Your task to perform on an android device: Open calendar and show me the second week of next month Image 0: 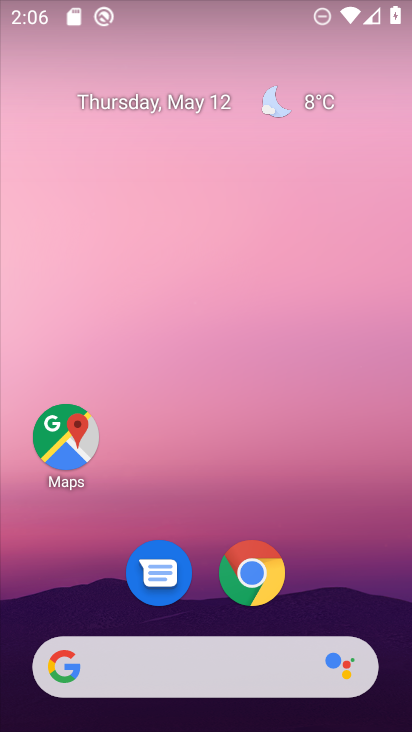
Step 0: drag from (340, 601) to (151, 67)
Your task to perform on an android device: Open calendar and show me the second week of next month Image 1: 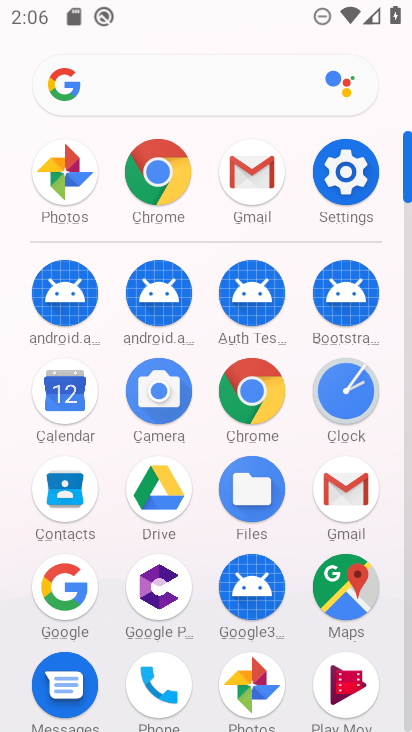
Step 1: click (62, 379)
Your task to perform on an android device: Open calendar and show me the second week of next month Image 2: 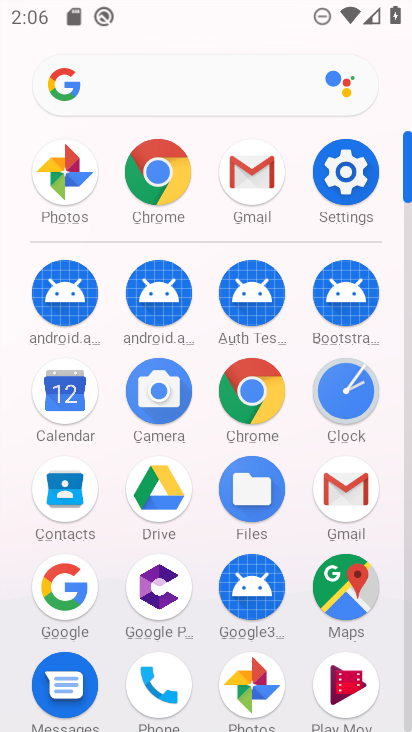
Step 2: click (65, 391)
Your task to perform on an android device: Open calendar and show me the second week of next month Image 3: 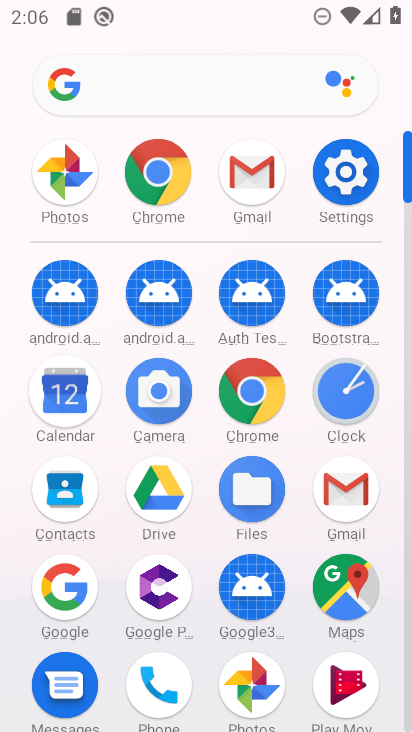
Step 3: click (67, 393)
Your task to perform on an android device: Open calendar and show me the second week of next month Image 4: 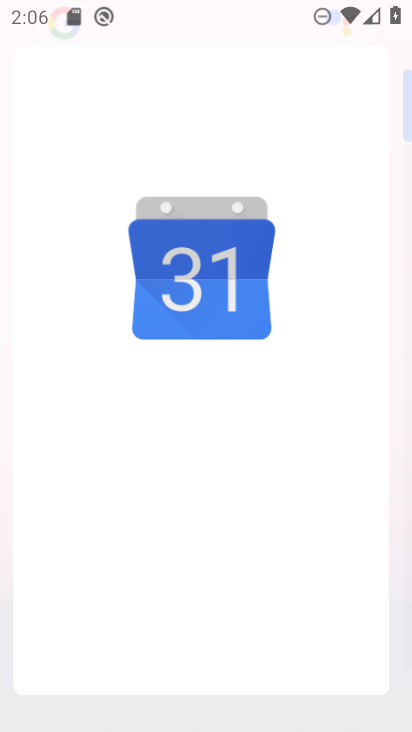
Step 4: click (67, 393)
Your task to perform on an android device: Open calendar and show me the second week of next month Image 5: 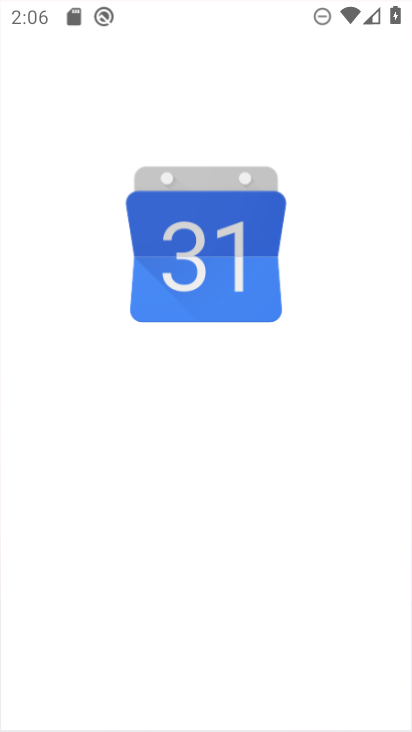
Step 5: click (68, 394)
Your task to perform on an android device: Open calendar and show me the second week of next month Image 6: 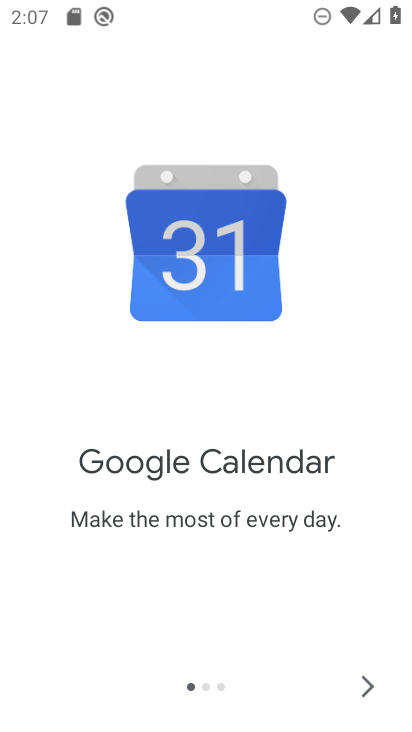
Step 6: click (372, 696)
Your task to perform on an android device: Open calendar and show me the second week of next month Image 7: 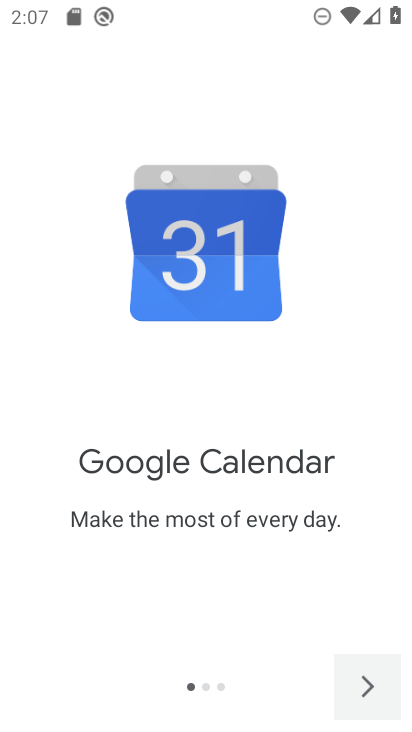
Step 7: click (374, 678)
Your task to perform on an android device: Open calendar and show me the second week of next month Image 8: 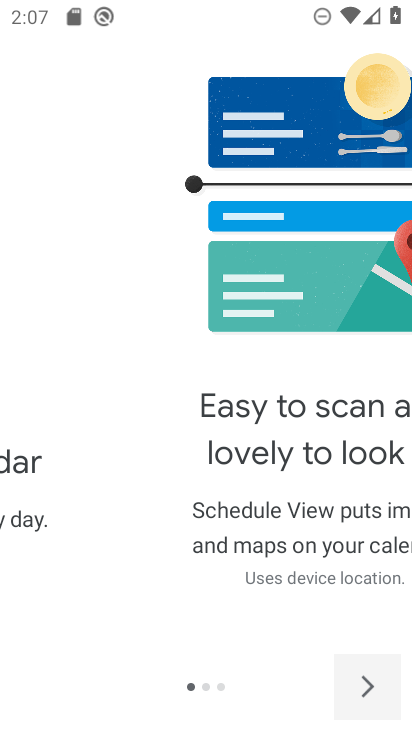
Step 8: click (374, 676)
Your task to perform on an android device: Open calendar and show me the second week of next month Image 9: 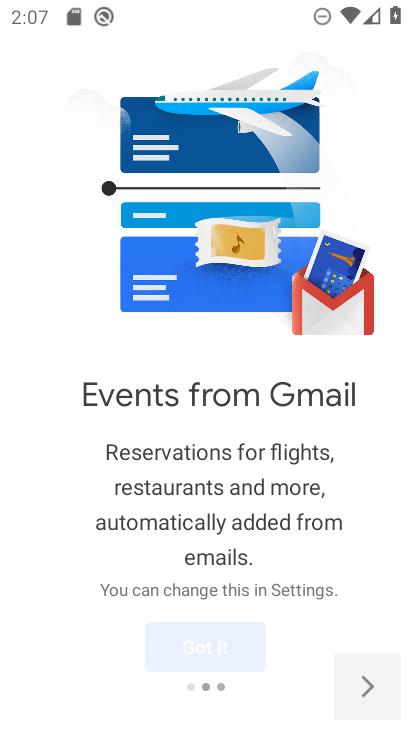
Step 9: click (376, 676)
Your task to perform on an android device: Open calendar and show me the second week of next month Image 10: 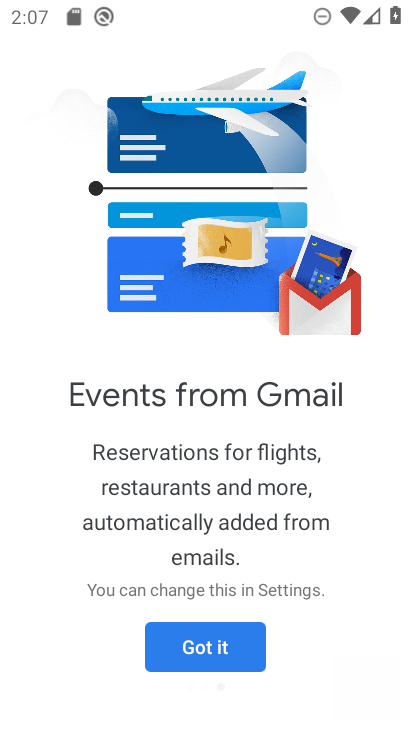
Step 10: click (376, 681)
Your task to perform on an android device: Open calendar and show me the second week of next month Image 11: 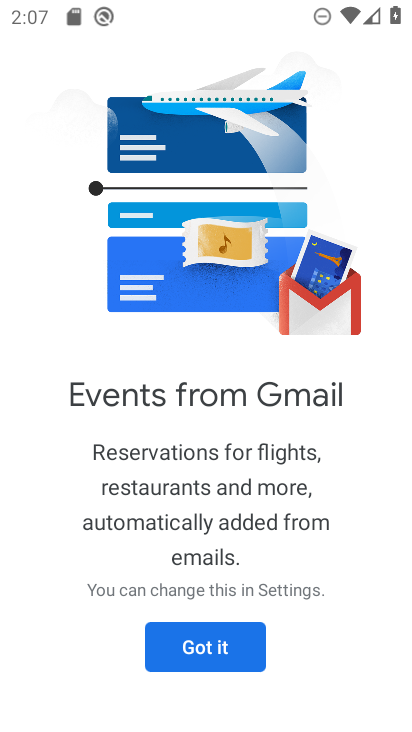
Step 11: click (372, 685)
Your task to perform on an android device: Open calendar and show me the second week of next month Image 12: 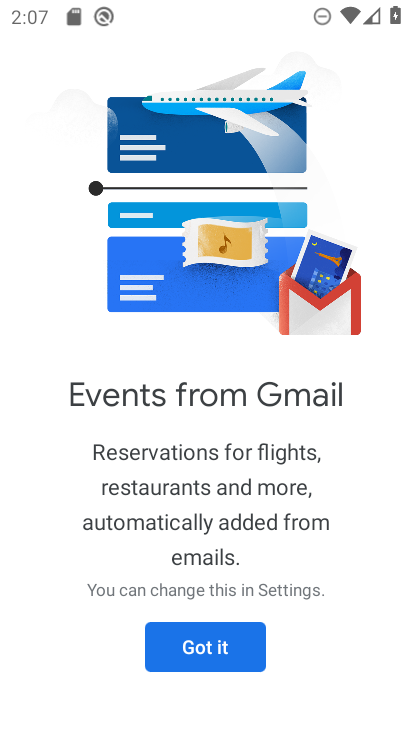
Step 12: click (212, 636)
Your task to perform on an android device: Open calendar and show me the second week of next month Image 13: 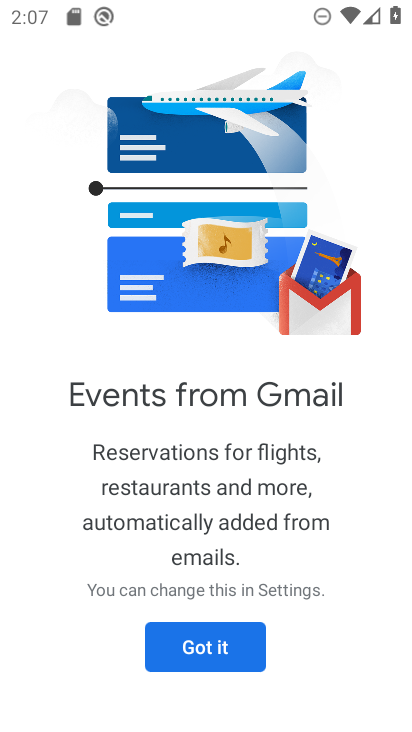
Step 13: click (212, 634)
Your task to perform on an android device: Open calendar and show me the second week of next month Image 14: 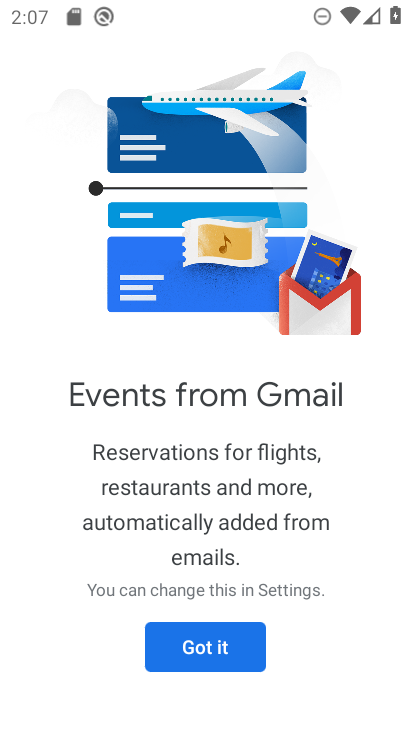
Step 14: click (211, 630)
Your task to perform on an android device: Open calendar and show me the second week of next month Image 15: 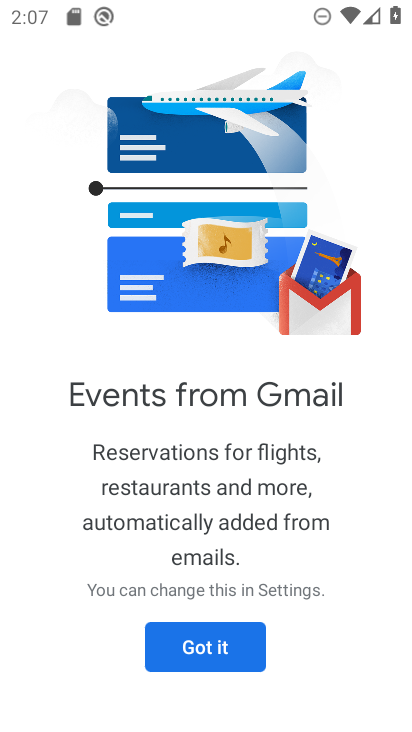
Step 15: click (212, 627)
Your task to perform on an android device: Open calendar and show me the second week of next month Image 16: 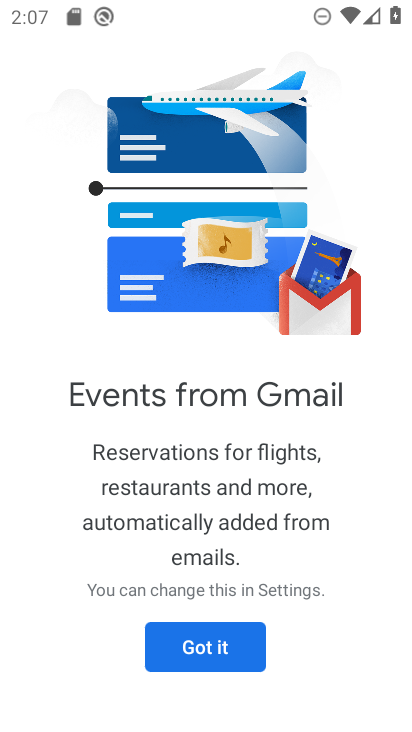
Step 16: click (212, 623)
Your task to perform on an android device: Open calendar and show me the second week of next month Image 17: 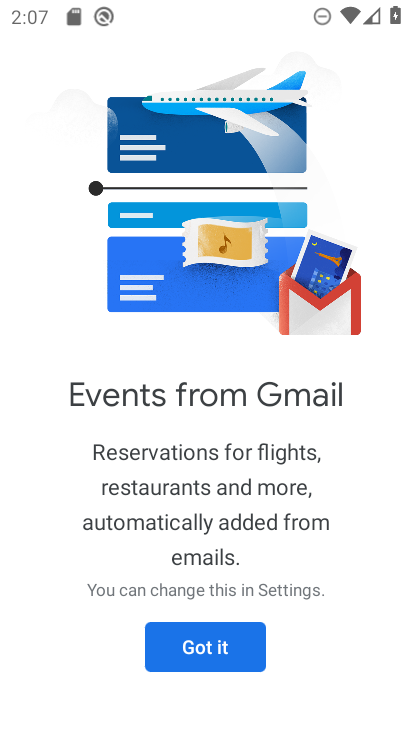
Step 17: click (205, 605)
Your task to perform on an android device: Open calendar and show me the second week of next month Image 18: 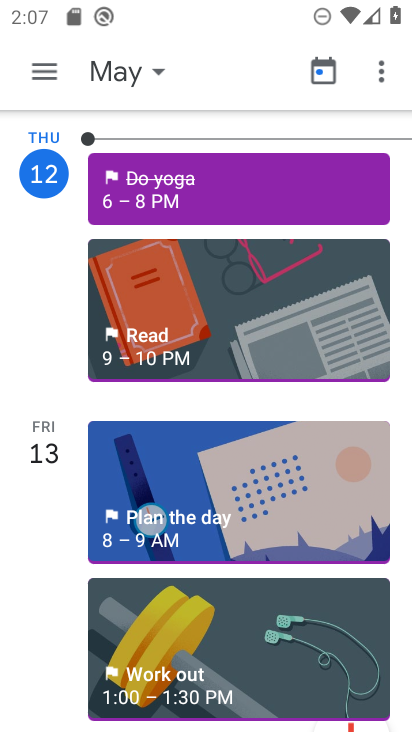
Step 18: click (235, 664)
Your task to perform on an android device: Open calendar and show me the second week of next month Image 19: 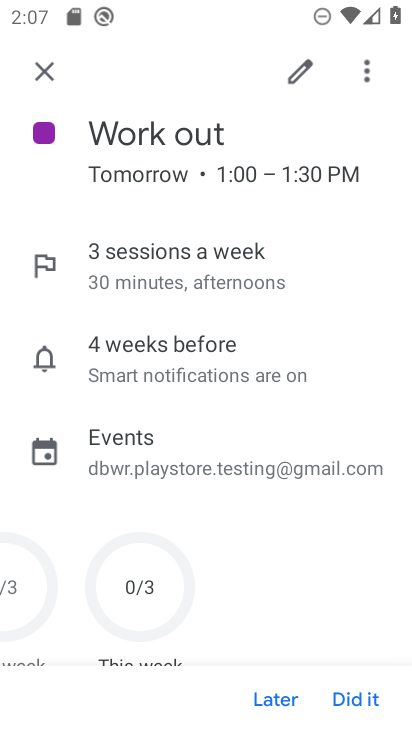
Step 19: drag from (221, 584) to (99, 155)
Your task to perform on an android device: Open calendar and show me the second week of next month Image 20: 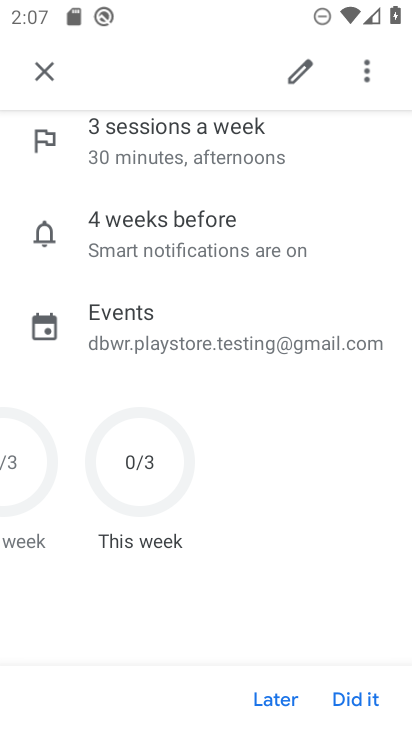
Step 20: click (47, 74)
Your task to perform on an android device: Open calendar and show me the second week of next month Image 21: 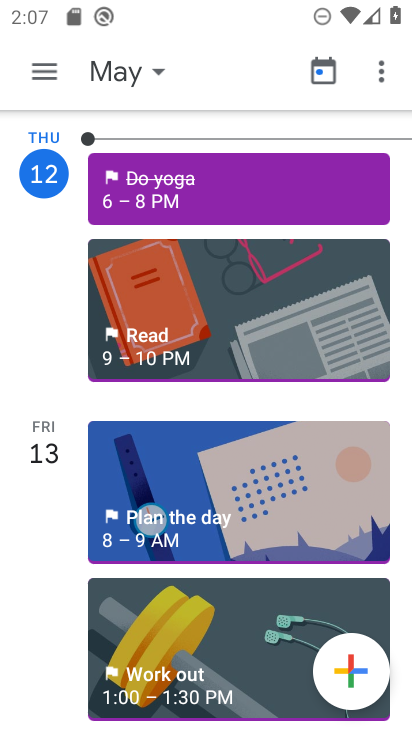
Step 21: drag from (168, 454) to (74, 202)
Your task to perform on an android device: Open calendar and show me the second week of next month Image 22: 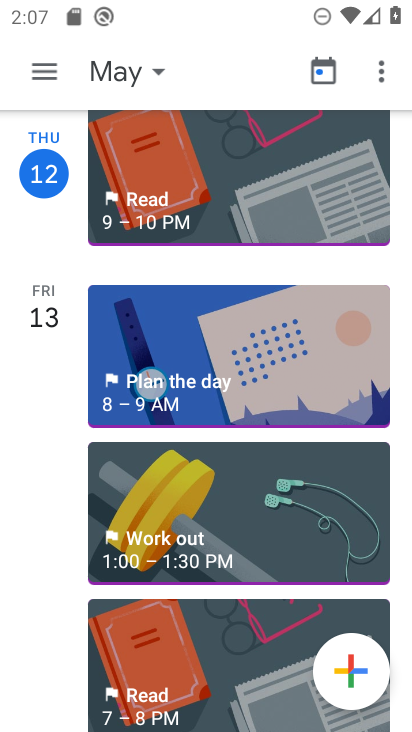
Step 22: drag from (124, 403) to (74, 214)
Your task to perform on an android device: Open calendar and show me the second week of next month Image 23: 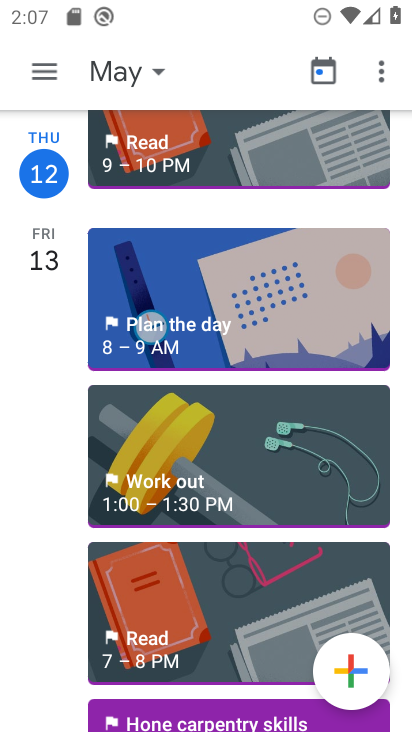
Step 23: drag from (178, 512) to (155, 210)
Your task to perform on an android device: Open calendar and show me the second week of next month Image 24: 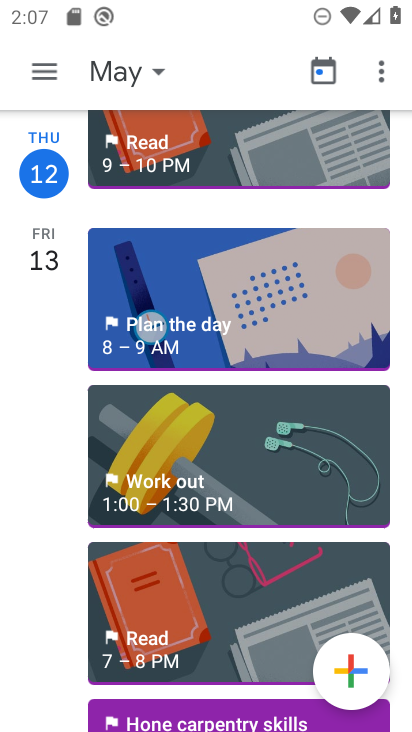
Step 24: drag from (158, 466) to (174, 199)
Your task to perform on an android device: Open calendar and show me the second week of next month Image 25: 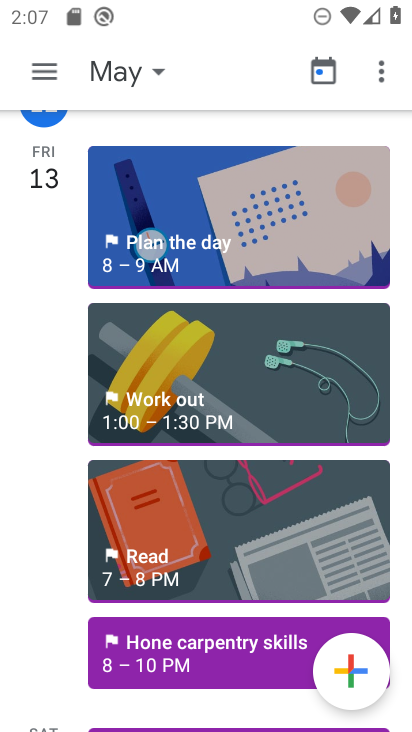
Step 25: drag from (167, 344) to (232, 676)
Your task to perform on an android device: Open calendar and show me the second week of next month Image 26: 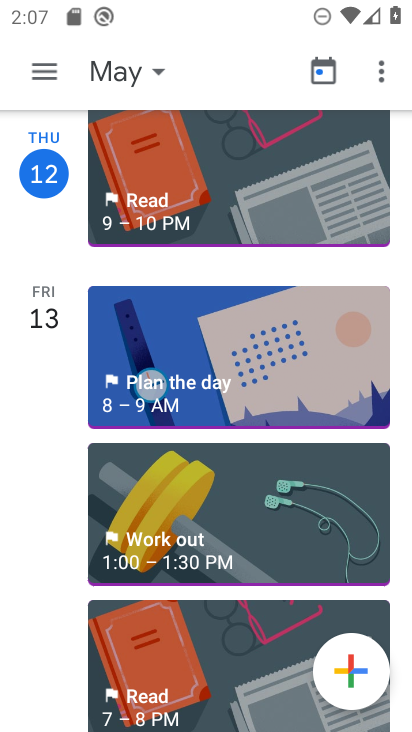
Step 26: drag from (207, 337) to (249, 610)
Your task to perform on an android device: Open calendar and show me the second week of next month Image 27: 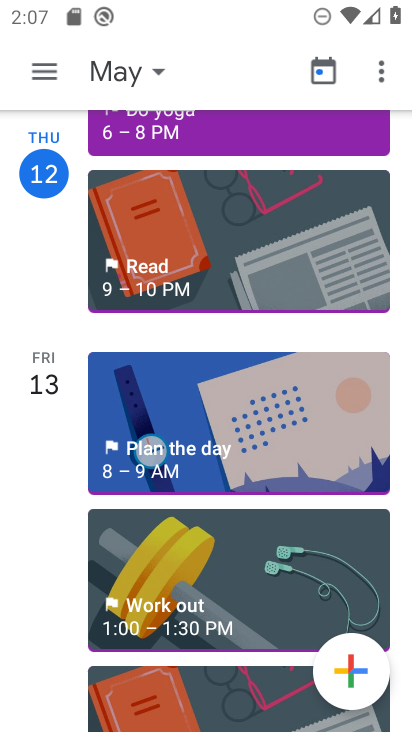
Step 27: drag from (132, 250) to (239, 607)
Your task to perform on an android device: Open calendar and show me the second week of next month Image 28: 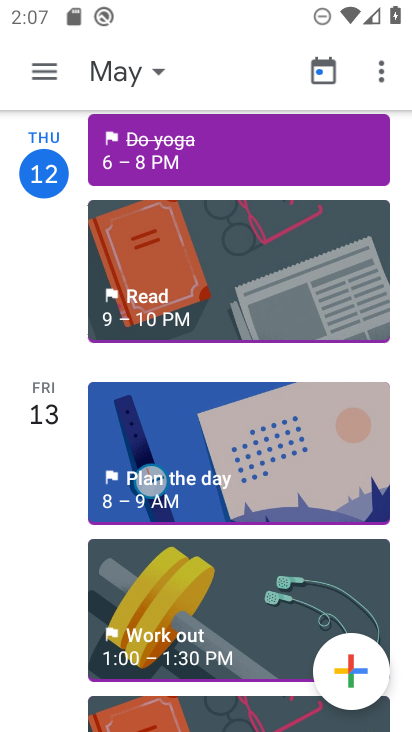
Step 28: drag from (183, 369) to (204, 521)
Your task to perform on an android device: Open calendar and show me the second week of next month Image 29: 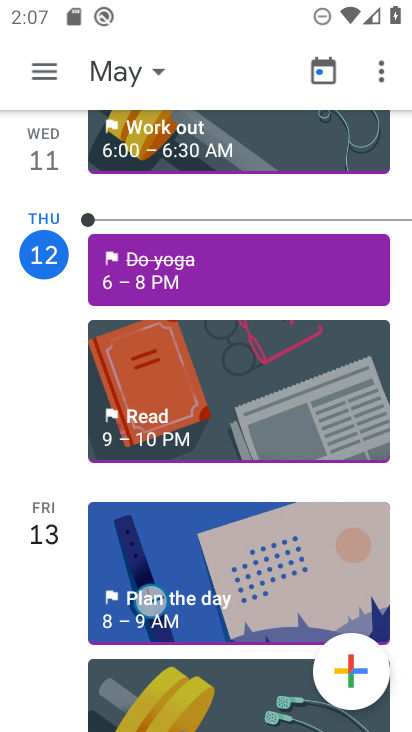
Step 29: drag from (198, 352) to (293, 574)
Your task to perform on an android device: Open calendar and show me the second week of next month Image 30: 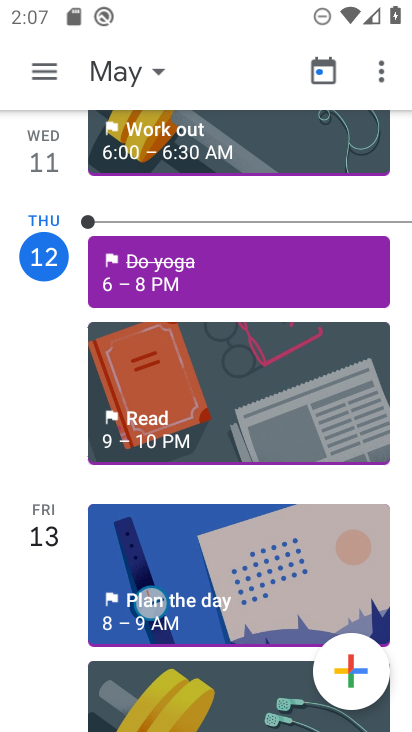
Step 30: drag from (211, 347) to (223, 517)
Your task to perform on an android device: Open calendar and show me the second week of next month Image 31: 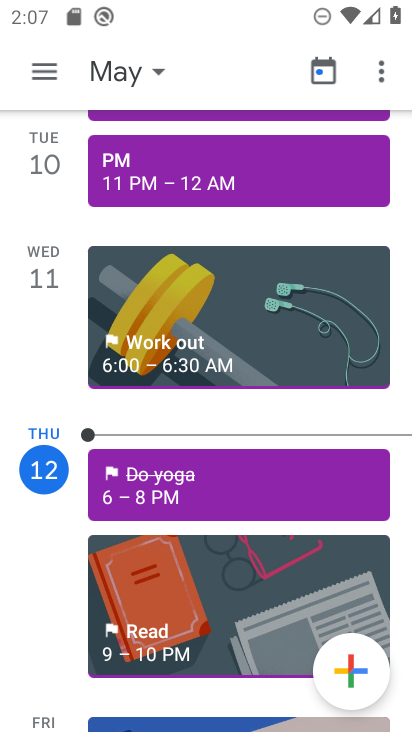
Step 31: drag from (156, 320) to (219, 558)
Your task to perform on an android device: Open calendar and show me the second week of next month Image 32: 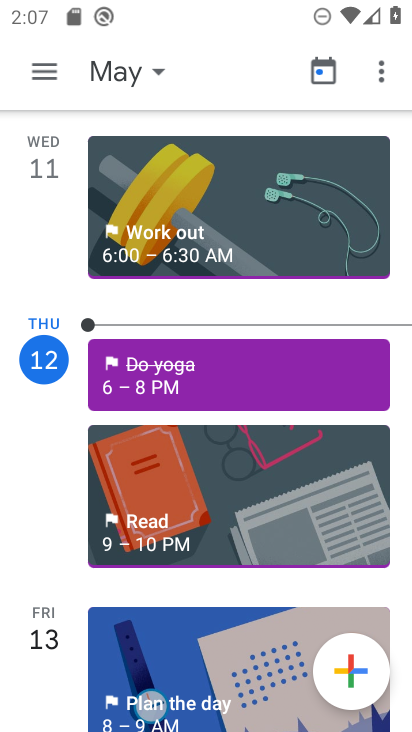
Step 32: drag from (137, 270) to (198, 492)
Your task to perform on an android device: Open calendar and show me the second week of next month Image 33: 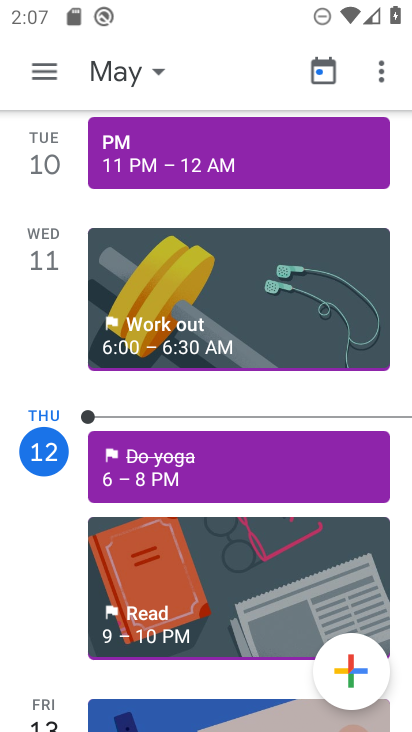
Step 33: click (190, 314)
Your task to perform on an android device: Open calendar and show me the second week of next month Image 34: 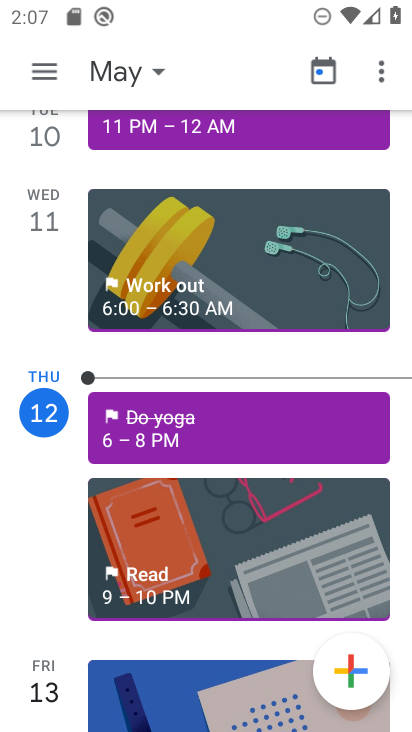
Step 34: drag from (179, 306) to (227, 481)
Your task to perform on an android device: Open calendar and show me the second week of next month Image 35: 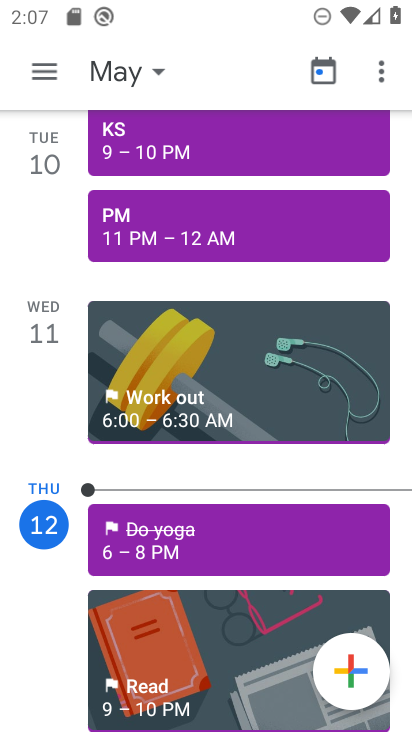
Step 35: drag from (182, 306) to (209, 490)
Your task to perform on an android device: Open calendar and show me the second week of next month Image 36: 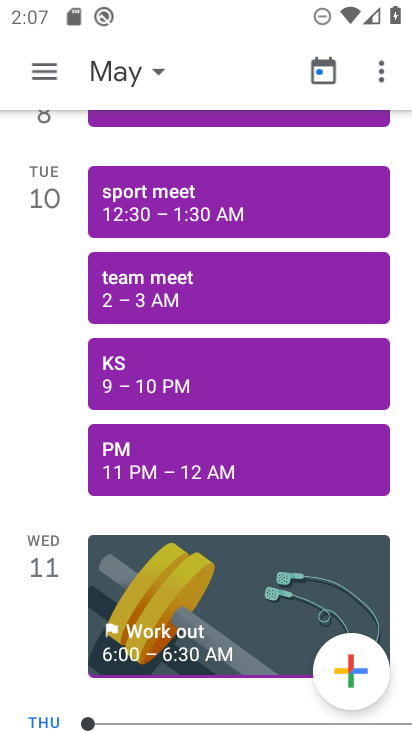
Step 36: drag from (124, 198) to (169, 368)
Your task to perform on an android device: Open calendar and show me the second week of next month Image 37: 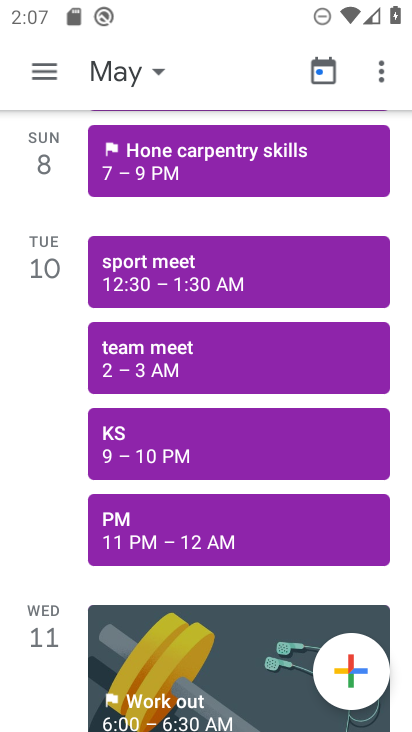
Step 37: drag from (147, 222) to (171, 339)
Your task to perform on an android device: Open calendar and show me the second week of next month Image 38: 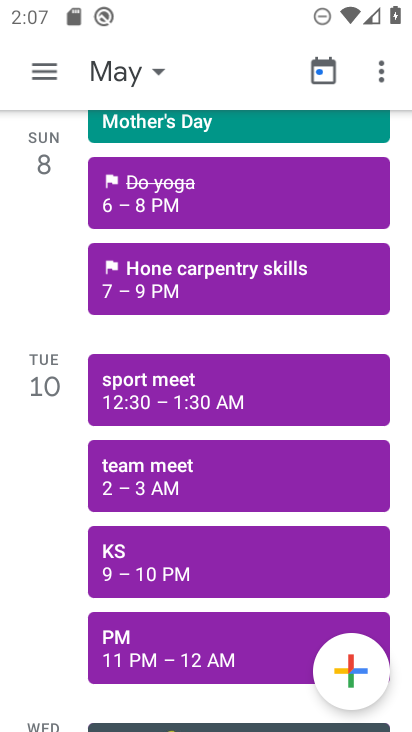
Step 38: drag from (176, 247) to (186, 346)
Your task to perform on an android device: Open calendar and show me the second week of next month Image 39: 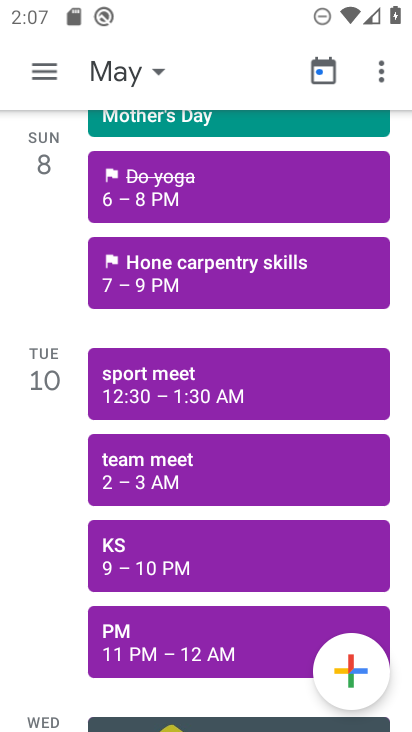
Step 39: click (159, 70)
Your task to perform on an android device: Open calendar and show me the second week of next month Image 40: 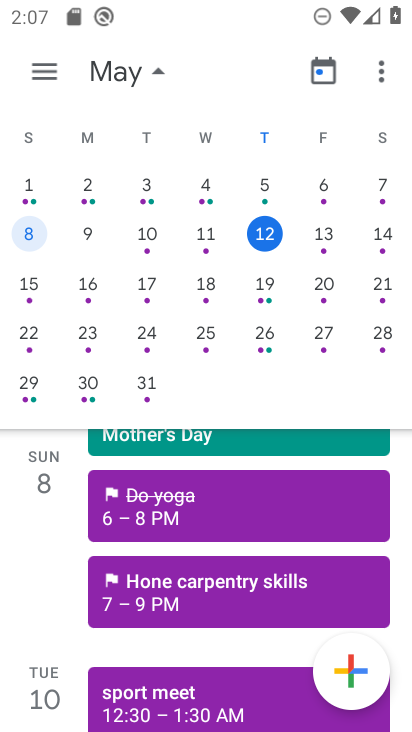
Step 40: drag from (308, 260) to (3, 272)
Your task to perform on an android device: Open calendar and show me the second week of next month Image 41: 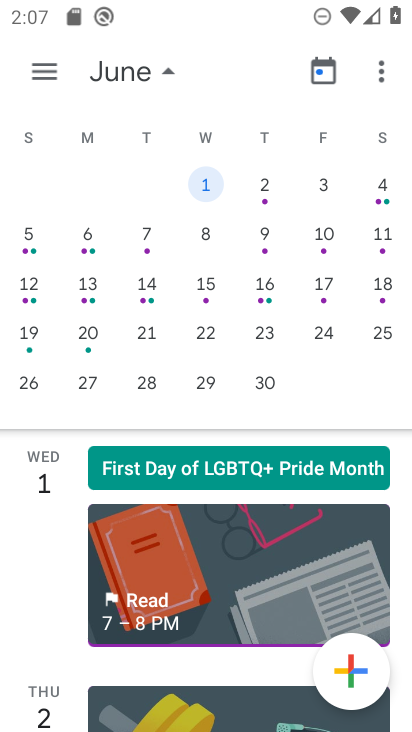
Step 41: click (206, 236)
Your task to perform on an android device: Open calendar and show me the second week of next month Image 42: 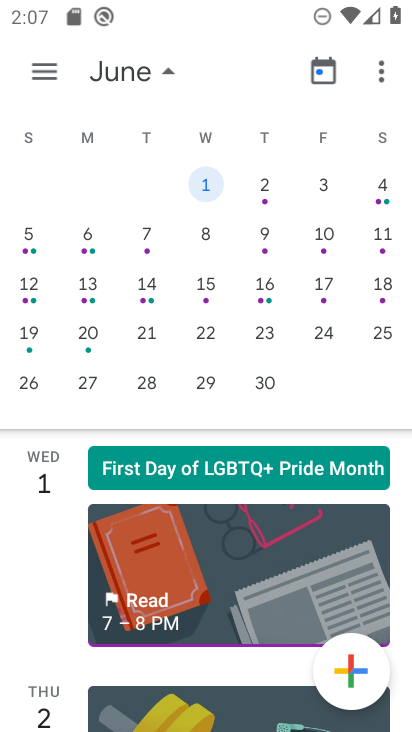
Step 42: click (209, 236)
Your task to perform on an android device: Open calendar and show me the second week of next month Image 43: 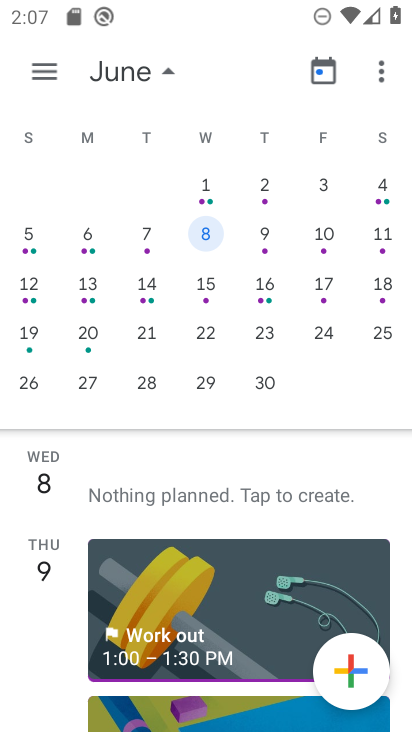
Step 43: click (211, 238)
Your task to perform on an android device: Open calendar and show me the second week of next month Image 44: 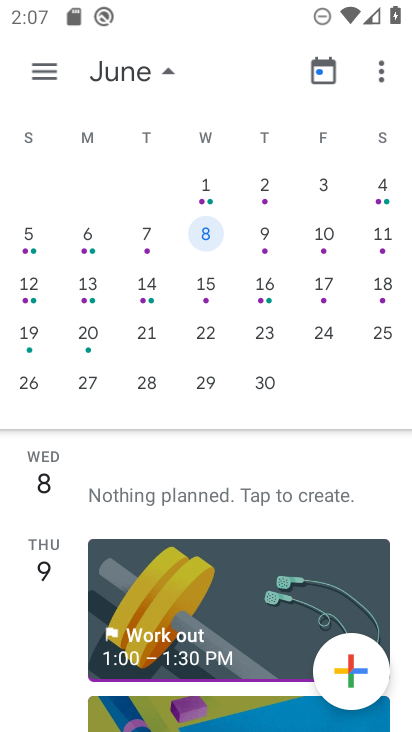
Step 44: click (211, 238)
Your task to perform on an android device: Open calendar and show me the second week of next month Image 45: 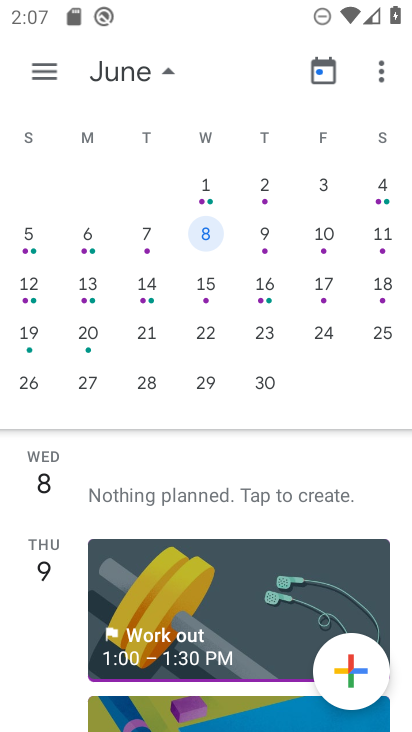
Step 45: task complete